Your task to perform on an android device: Turn off the flashlight Image 0: 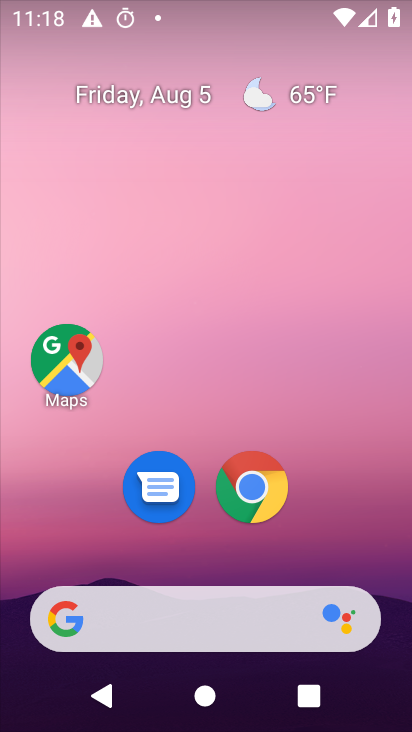
Step 0: drag from (170, 573) to (284, 151)
Your task to perform on an android device: Turn off the flashlight Image 1: 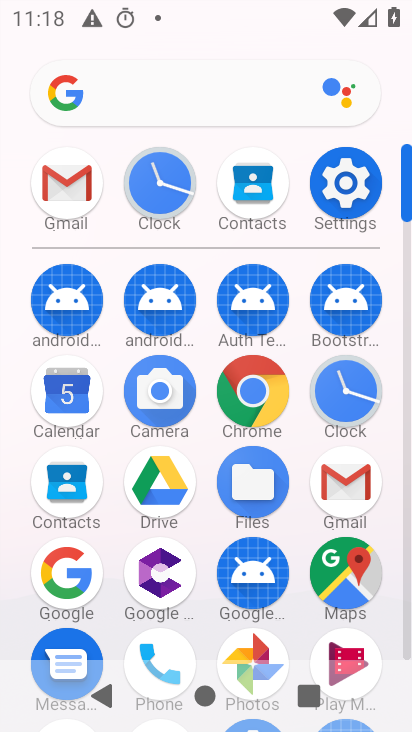
Step 1: click (347, 169)
Your task to perform on an android device: Turn off the flashlight Image 2: 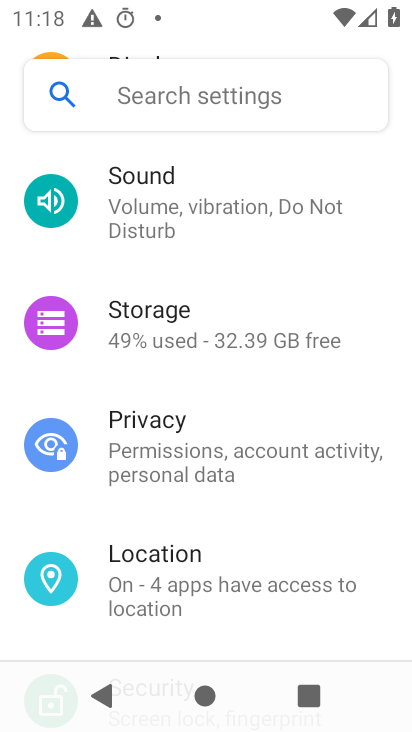
Step 2: click (195, 97)
Your task to perform on an android device: Turn off the flashlight Image 3: 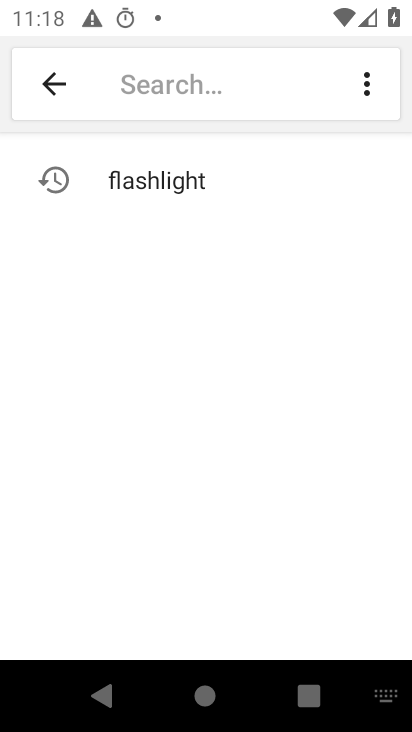
Step 3: type "flashlight"
Your task to perform on an android device: Turn off the flashlight Image 4: 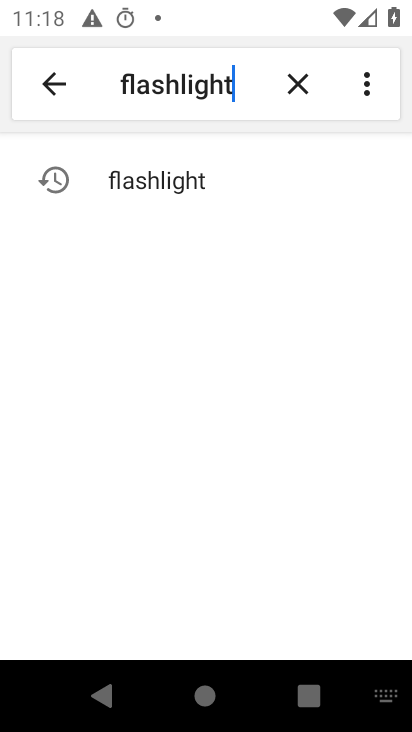
Step 4: click (161, 176)
Your task to perform on an android device: Turn off the flashlight Image 5: 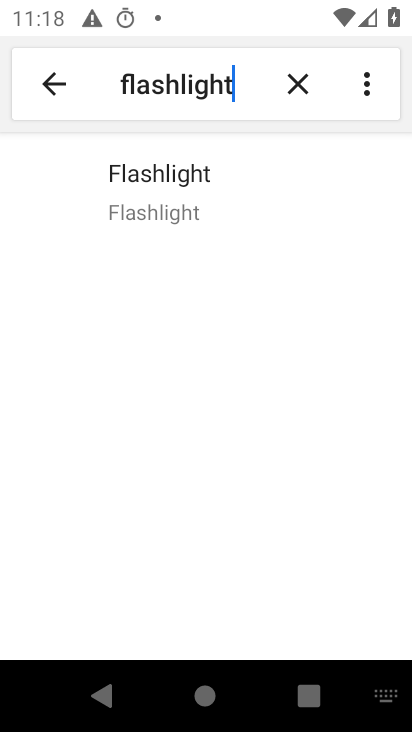
Step 5: task complete